Your task to perform on an android device: move a message to another label in the gmail app Image 0: 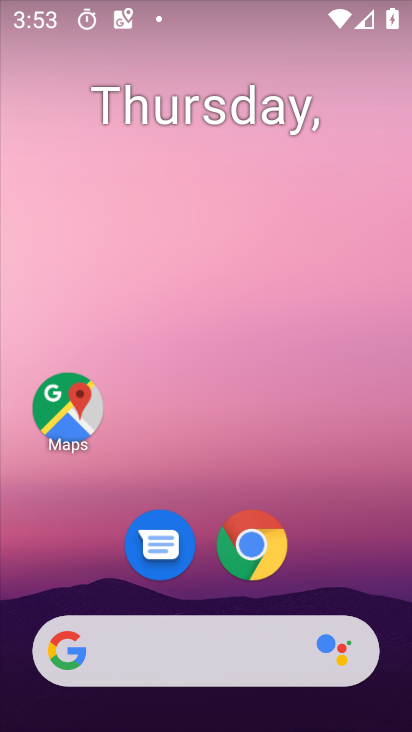
Step 0: drag from (203, 725) to (212, 148)
Your task to perform on an android device: move a message to another label in the gmail app Image 1: 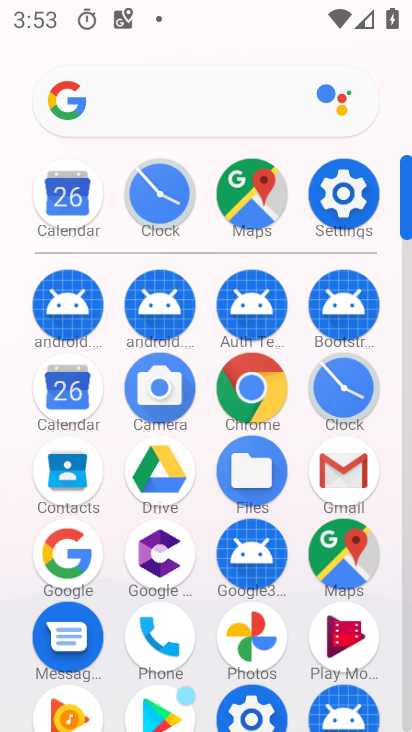
Step 1: click (337, 470)
Your task to perform on an android device: move a message to another label in the gmail app Image 2: 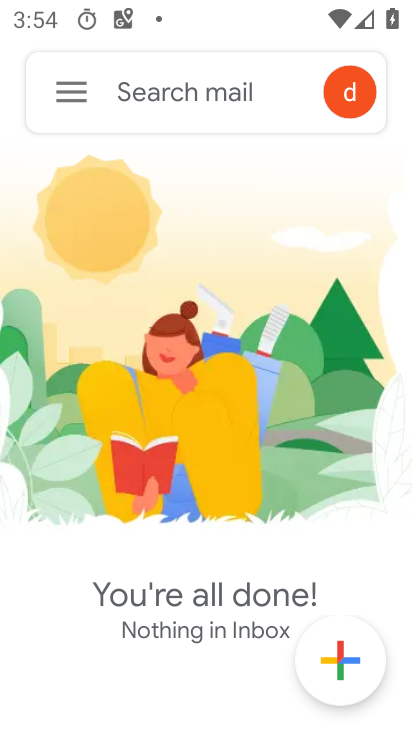
Step 2: task complete